Your task to perform on an android device: Show me popular videos on Youtube Image 0: 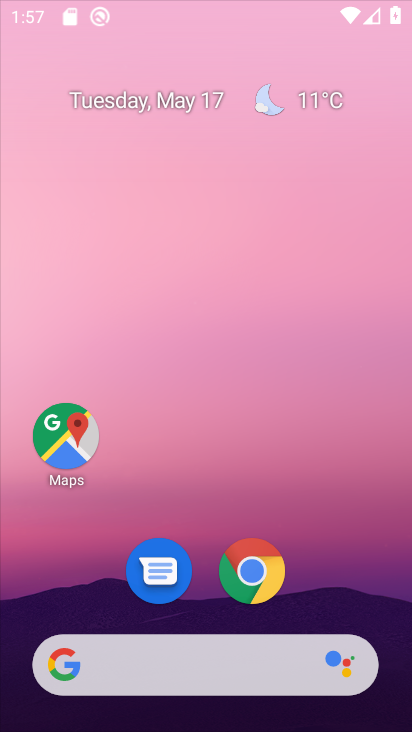
Step 0: click (346, 401)
Your task to perform on an android device: Show me popular videos on Youtube Image 1: 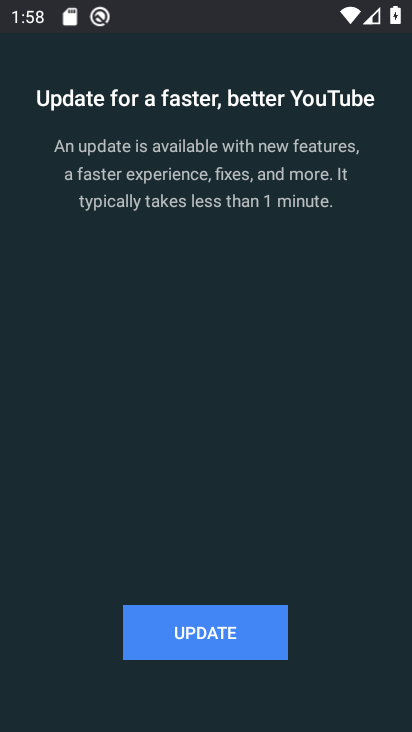
Step 1: click (181, 615)
Your task to perform on an android device: Show me popular videos on Youtube Image 2: 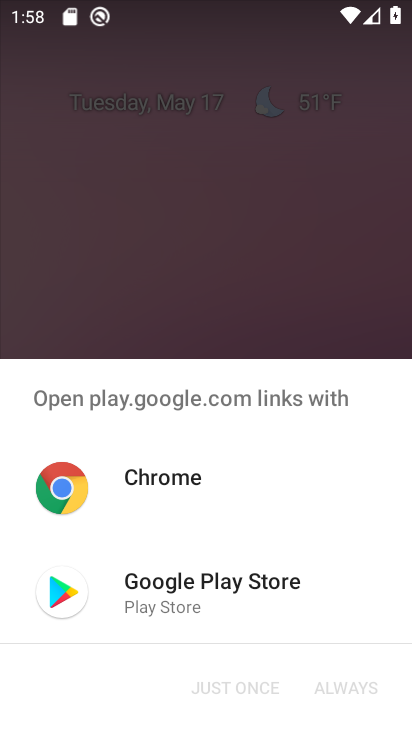
Step 2: click (332, 626)
Your task to perform on an android device: Show me popular videos on Youtube Image 3: 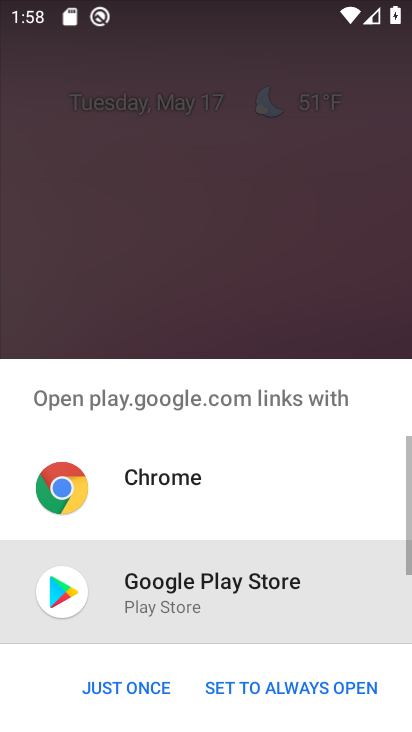
Step 3: click (243, 682)
Your task to perform on an android device: Show me popular videos on Youtube Image 4: 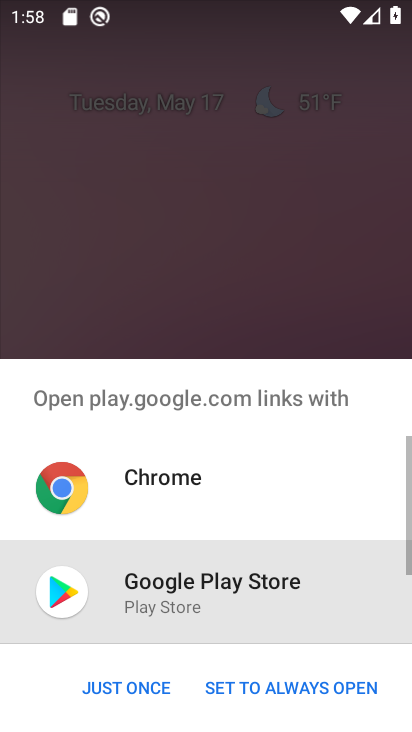
Step 4: click (243, 682)
Your task to perform on an android device: Show me popular videos on Youtube Image 5: 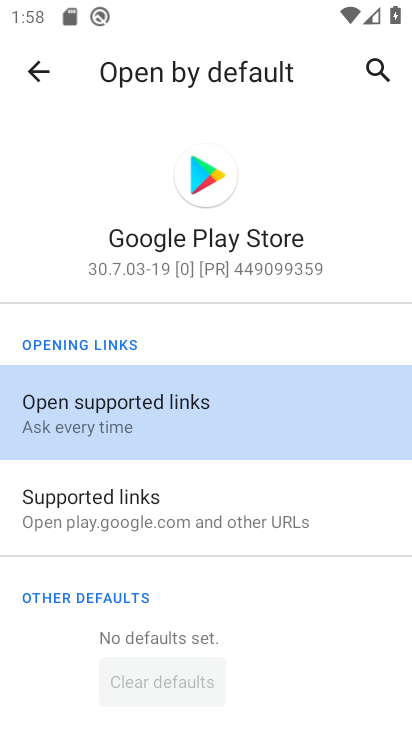
Step 5: click (26, 66)
Your task to perform on an android device: Show me popular videos on Youtube Image 6: 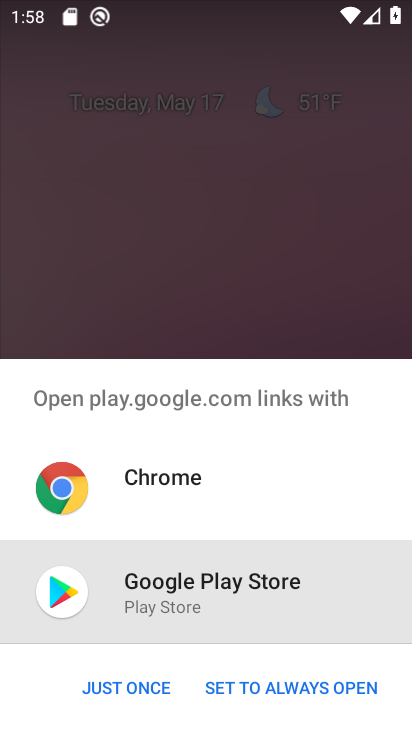
Step 6: click (167, 672)
Your task to perform on an android device: Show me popular videos on Youtube Image 7: 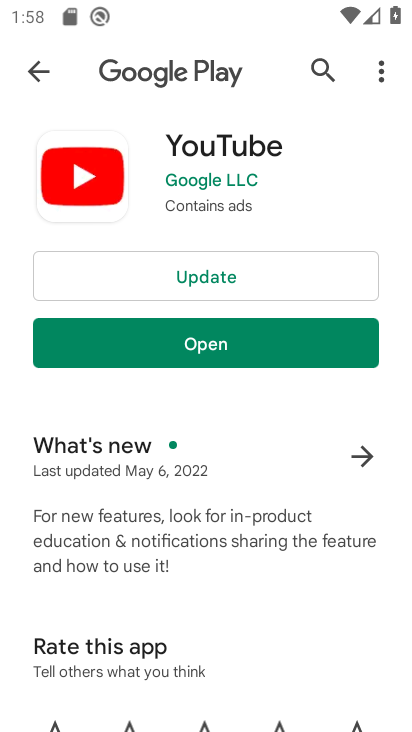
Step 7: click (222, 275)
Your task to perform on an android device: Show me popular videos on Youtube Image 8: 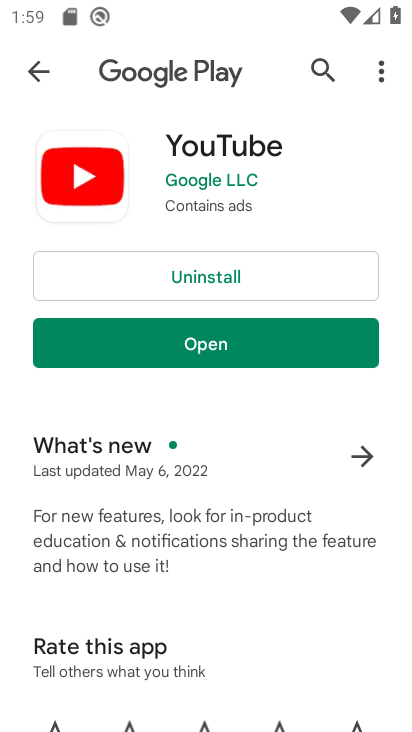
Step 8: click (219, 340)
Your task to perform on an android device: Show me popular videos on Youtube Image 9: 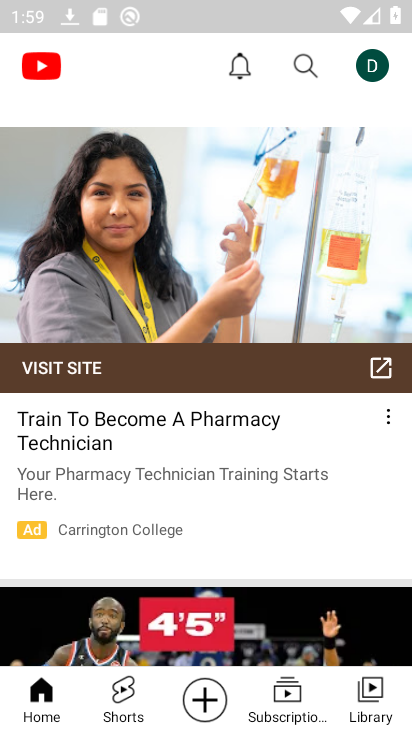
Step 9: click (356, 698)
Your task to perform on an android device: Show me popular videos on Youtube Image 10: 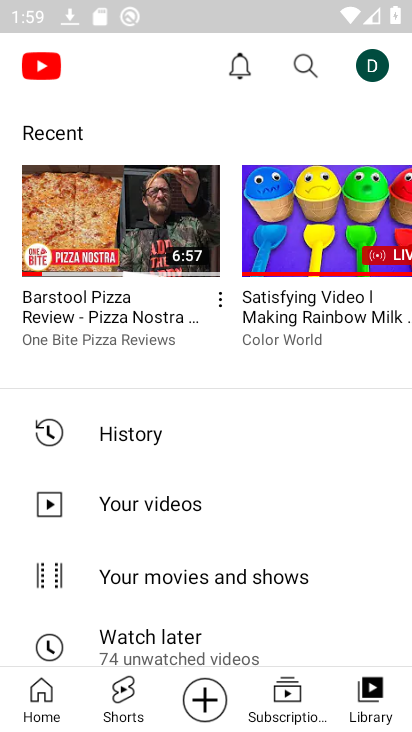
Step 10: drag from (214, 523) to (205, 296)
Your task to perform on an android device: Show me popular videos on Youtube Image 11: 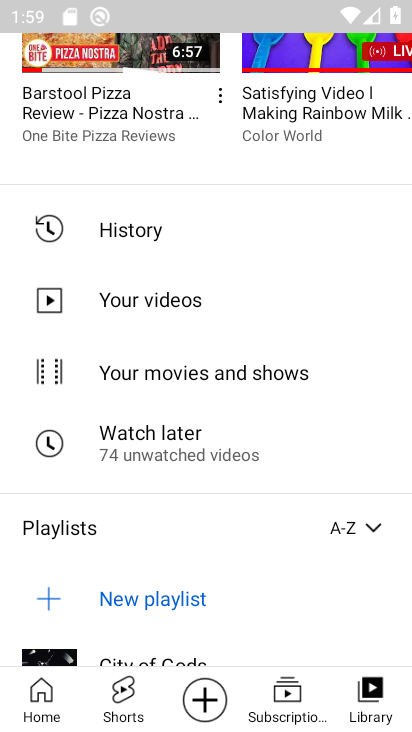
Step 11: drag from (207, 550) to (189, 180)
Your task to perform on an android device: Show me popular videos on Youtube Image 12: 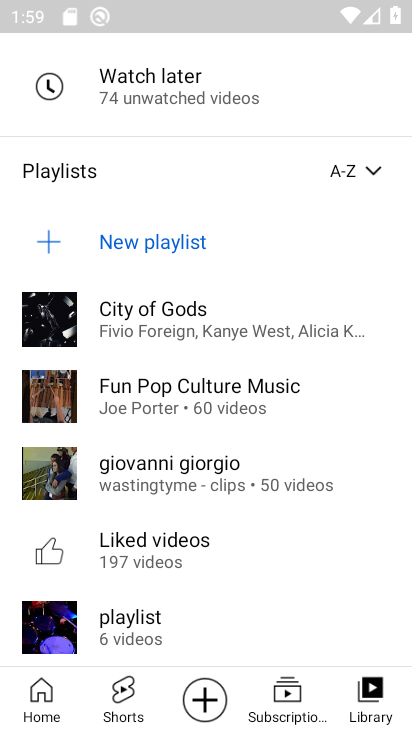
Step 12: drag from (170, 440) to (157, 3)
Your task to perform on an android device: Show me popular videos on Youtube Image 13: 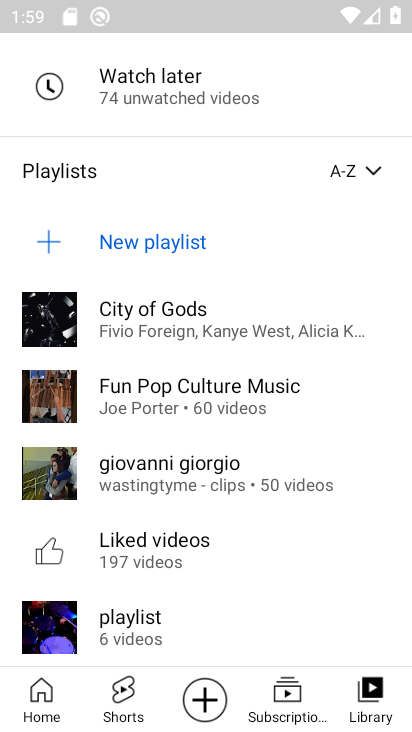
Step 13: drag from (144, 84) to (109, 437)
Your task to perform on an android device: Show me popular videos on Youtube Image 14: 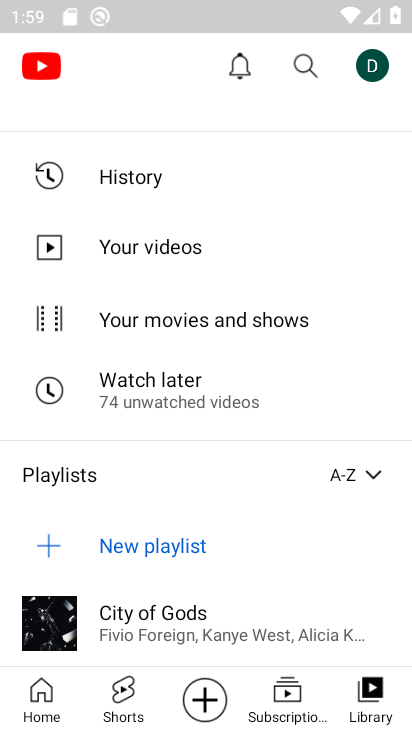
Step 14: drag from (155, 233) to (101, 588)
Your task to perform on an android device: Show me popular videos on Youtube Image 15: 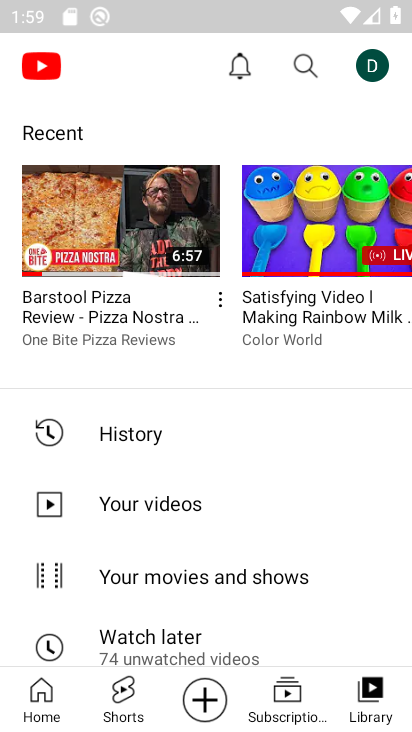
Step 15: click (360, 57)
Your task to perform on an android device: Show me popular videos on Youtube Image 16: 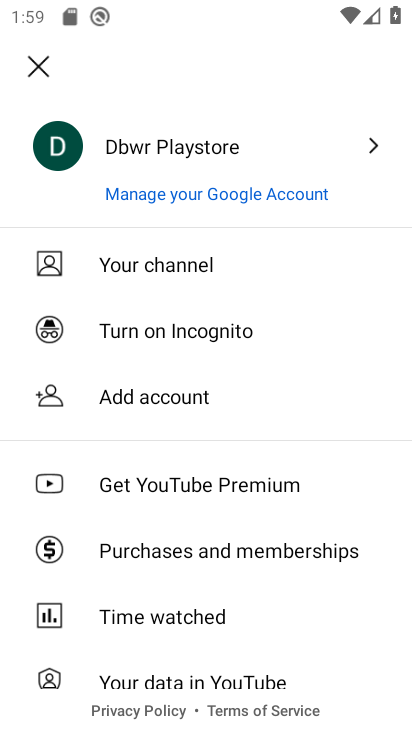
Step 16: task complete